Your task to perform on an android device: Open ESPN.com Image 0: 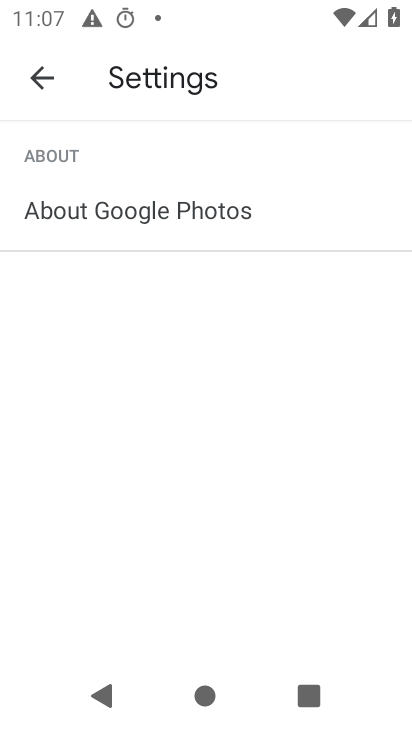
Step 0: press back button
Your task to perform on an android device: Open ESPN.com Image 1: 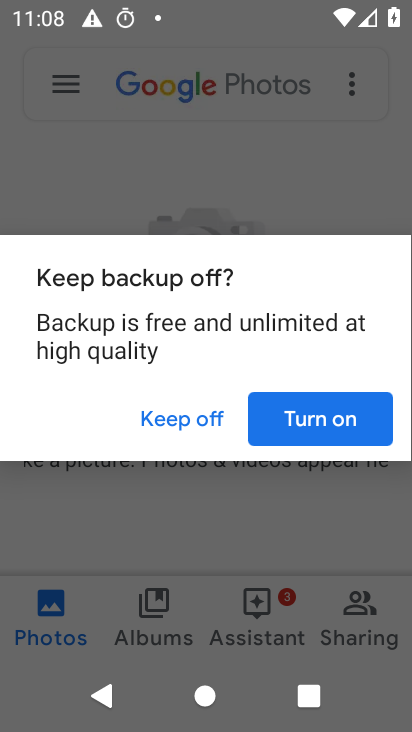
Step 1: press back button
Your task to perform on an android device: Open ESPN.com Image 2: 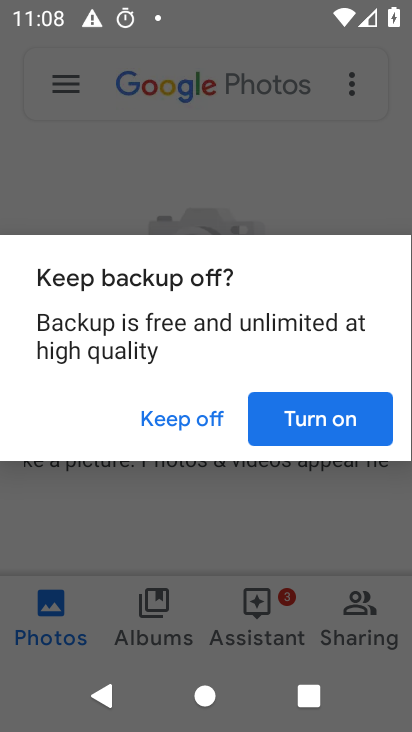
Step 2: press home button
Your task to perform on an android device: Open ESPN.com Image 3: 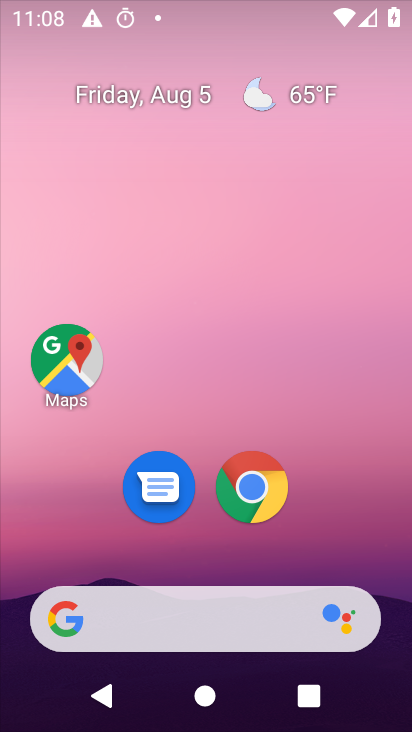
Step 3: click (256, 495)
Your task to perform on an android device: Open ESPN.com Image 4: 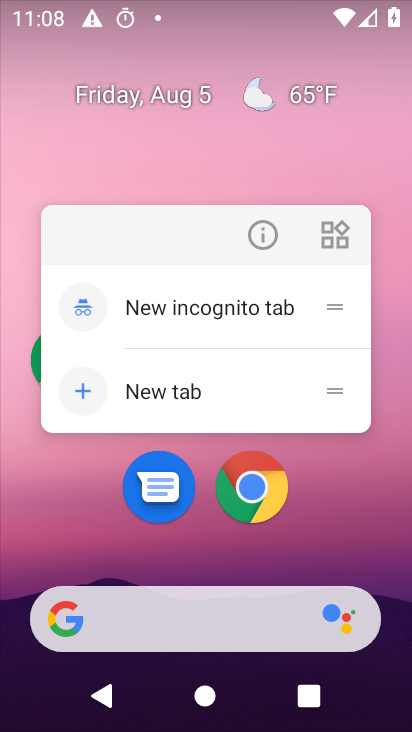
Step 4: click (264, 471)
Your task to perform on an android device: Open ESPN.com Image 5: 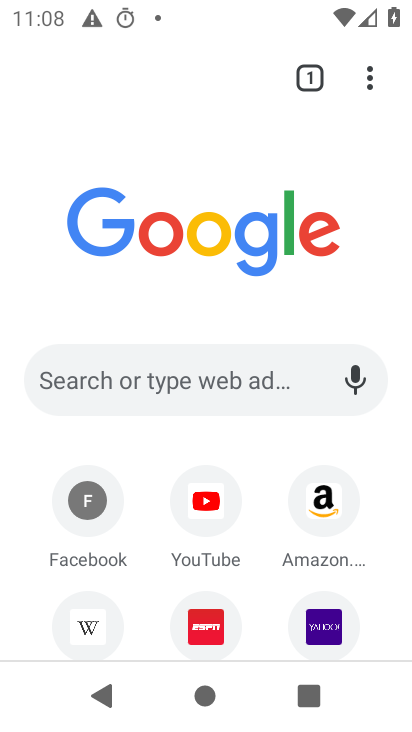
Step 5: click (222, 625)
Your task to perform on an android device: Open ESPN.com Image 6: 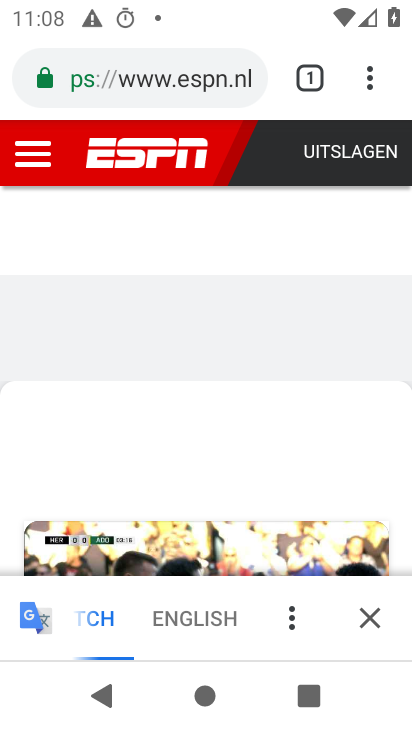
Step 6: task complete